Your task to perform on an android device: Go to notification settings Image 0: 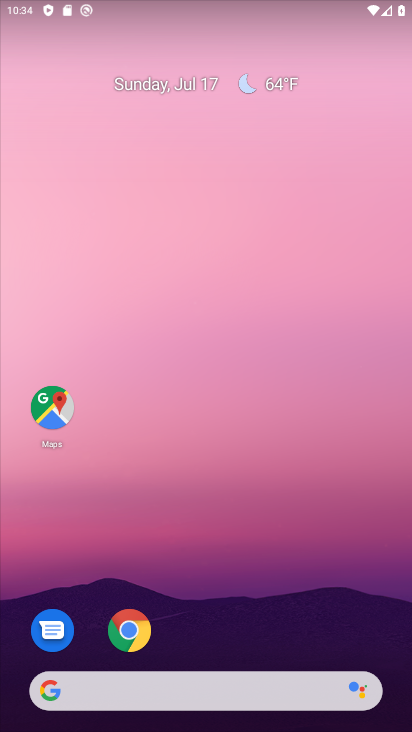
Step 0: drag from (393, 647) to (345, 184)
Your task to perform on an android device: Go to notification settings Image 1: 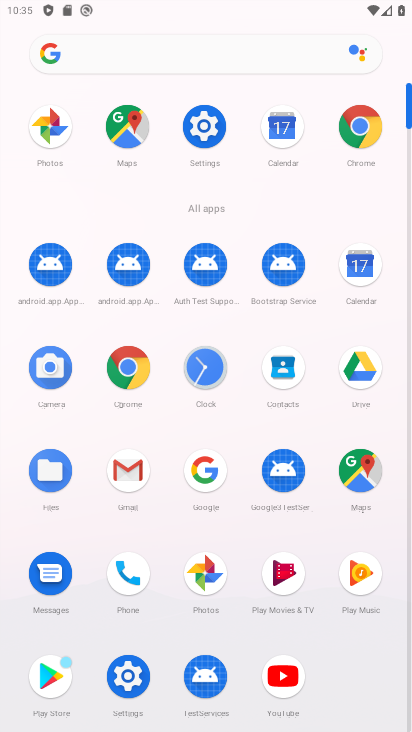
Step 1: click (129, 679)
Your task to perform on an android device: Go to notification settings Image 2: 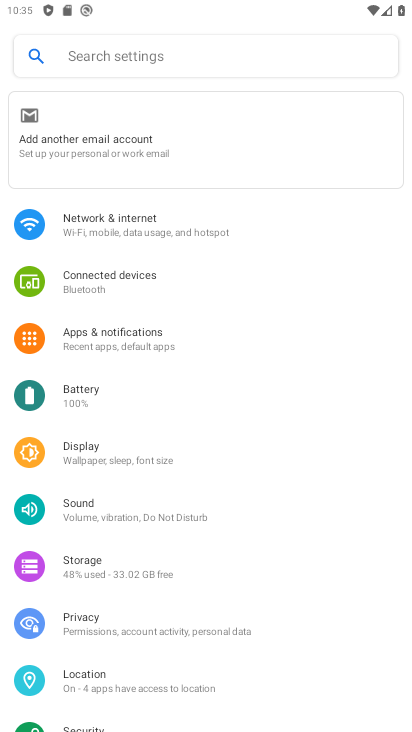
Step 2: click (107, 332)
Your task to perform on an android device: Go to notification settings Image 3: 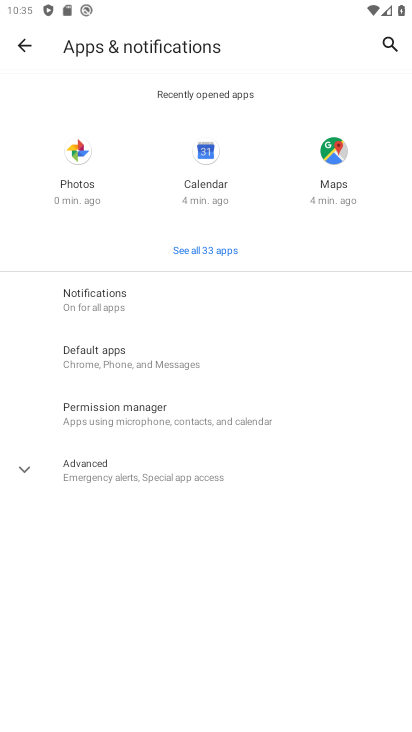
Step 3: click (77, 290)
Your task to perform on an android device: Go to notification settings Image 4: 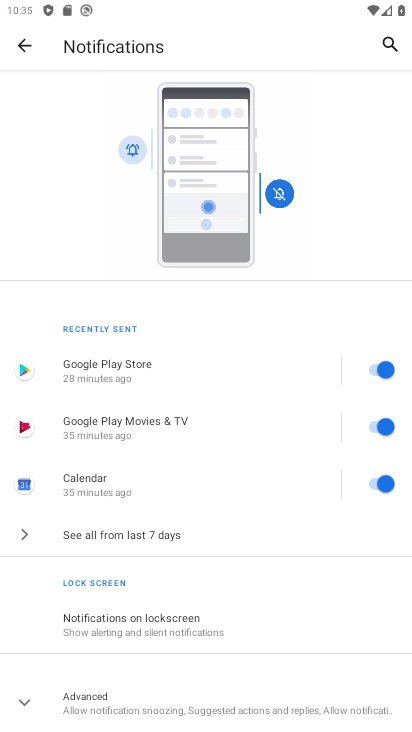
Step 4: drag from (263, 620) to (263, 305)
Your task to perform on an android device: Go to notification settings Image 5: 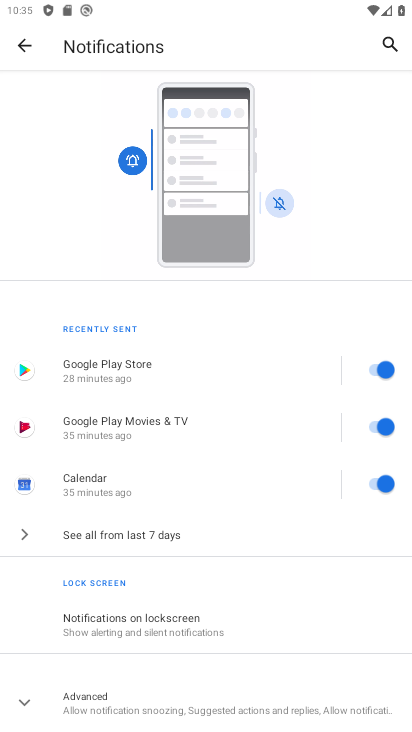
Step 5: click (22, 699)
Your task to perform on an android device: Go to notification settings Image 6: 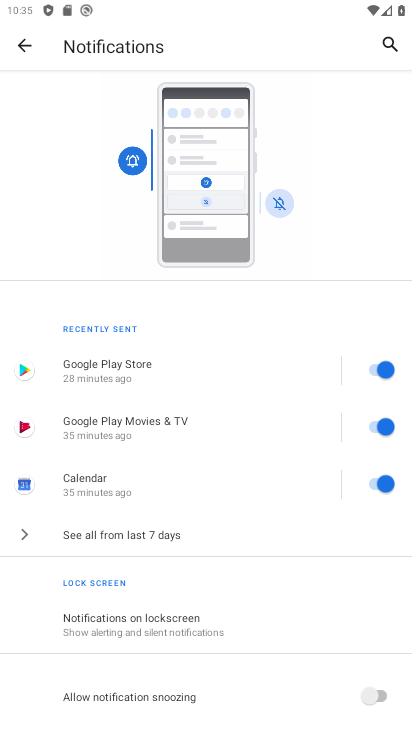
Step 6: task complete